Your task to perform on an android device: search for starred emails in the gmail app Image 0: 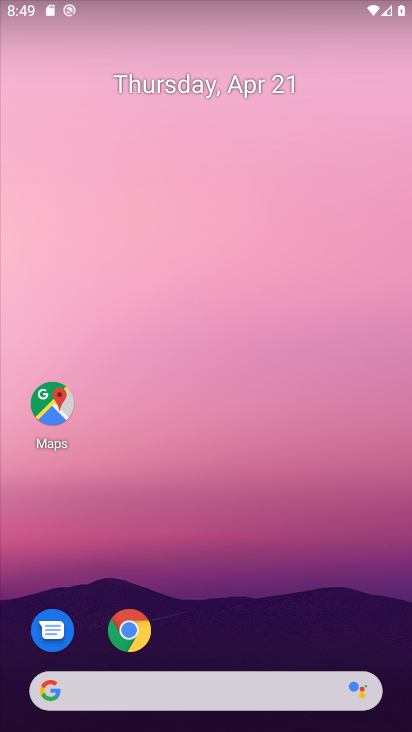
Step 0: drag from (217, 549) to (358, 12)
Your task to perform on an android device: search for starred emails in the gmail app Image 1: 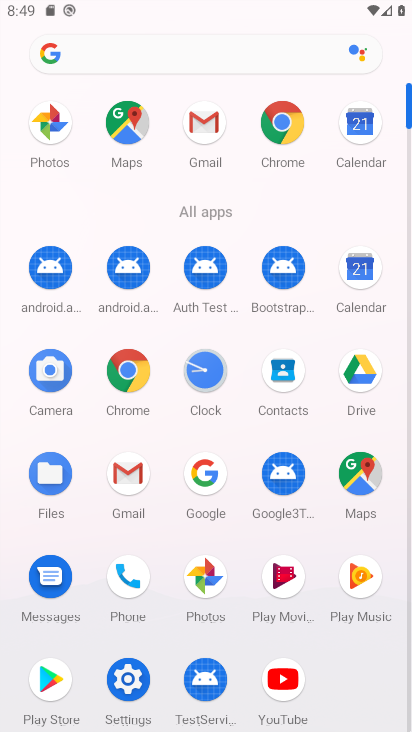
Step 1: click (125, 487)
Your task to perform on an android device: search for starred emails in the gmail app Image 2: 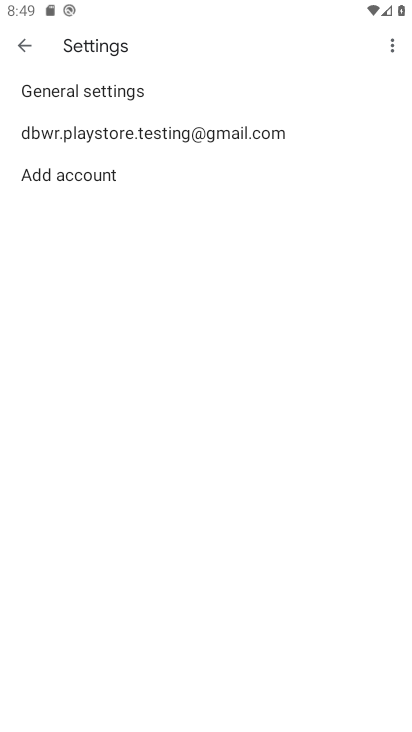
Step 2: click (27, 40)
Your task to perform on an android device: search for starred emails in the gmail app Image 3: 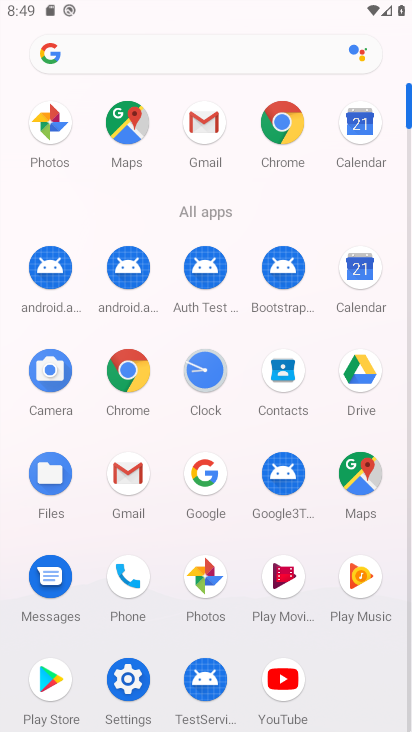
Step 3: click (136, 483)
Your task to perform on an android device: search for starred emails in the gmail app Image 4: 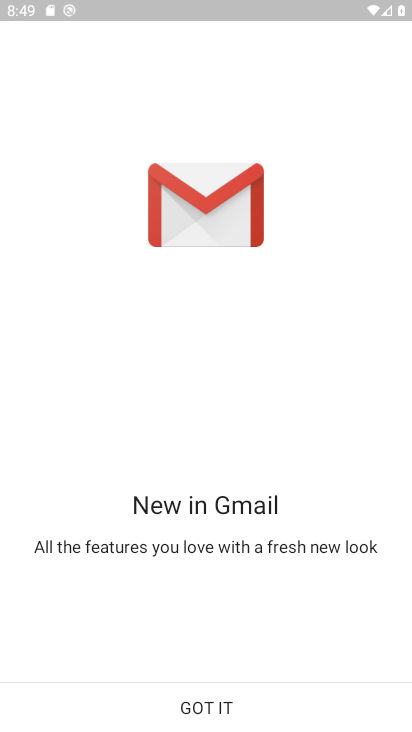
Step 4: click (238, 715)
Your task to perform on an android device: search for starred emails in the gmail app Image 5: 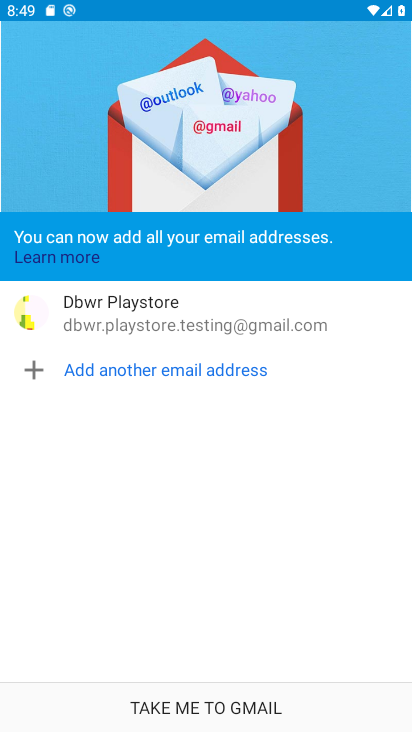
Step 5: click (163, 701)
Your task to perform on an android device: search for starred emails in the gmail app Image 6: 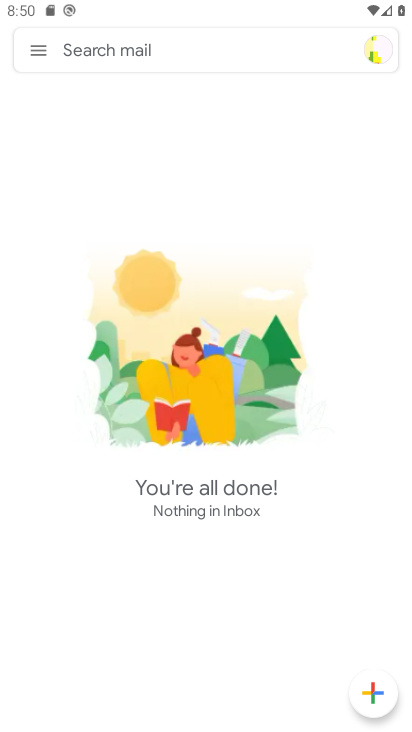
Step 6: click (31, 48)
Your task to perform on an android device: search for starred emails in the gmail app Image 7: 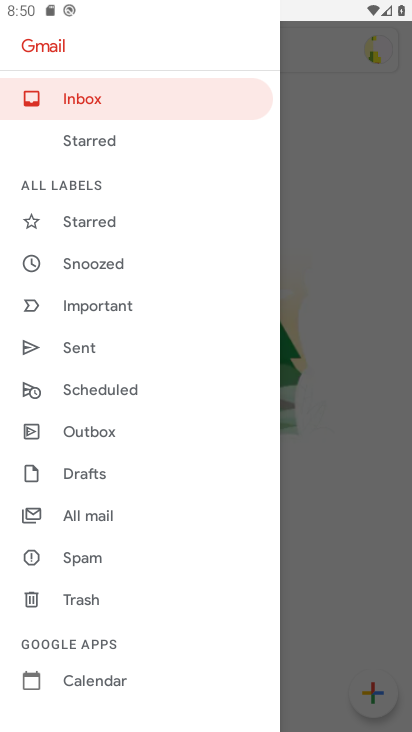
Step 7: click (90, 217)
Your task to perform on an android device: search for starred emails in the gmail app Image 8: 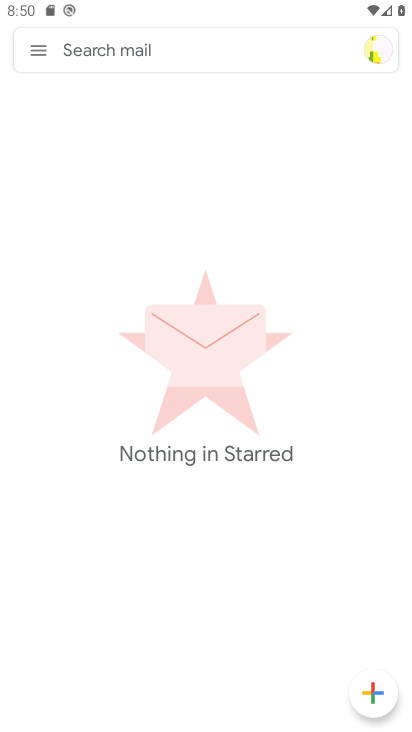
Step 8: task complete